Your task to perform on an android device: Open Reddit.com Image 0: 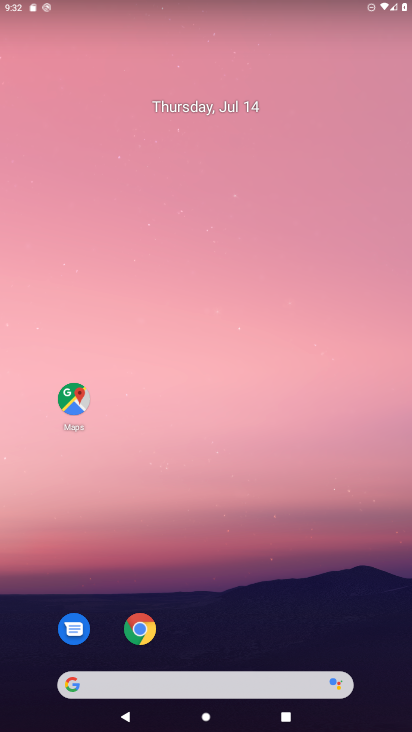
Step 0: drag from (239, 637) to (251, 31)
Your task to perform on an android device: Open Reddit.com Image 1: 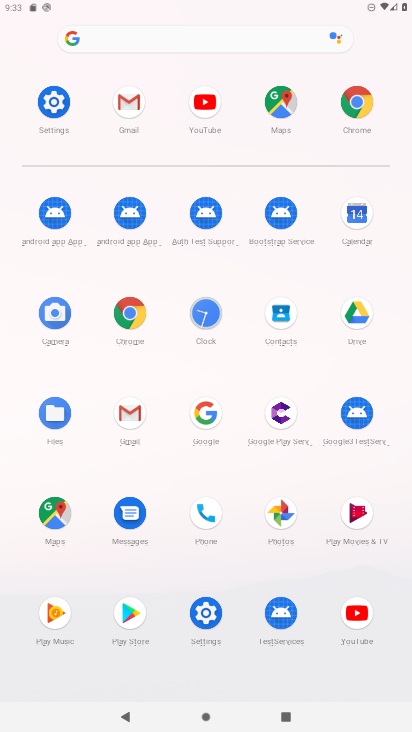
Step 1: click (123, 309)
Your task to perform on an android device: Open Reddit.com Image 2: 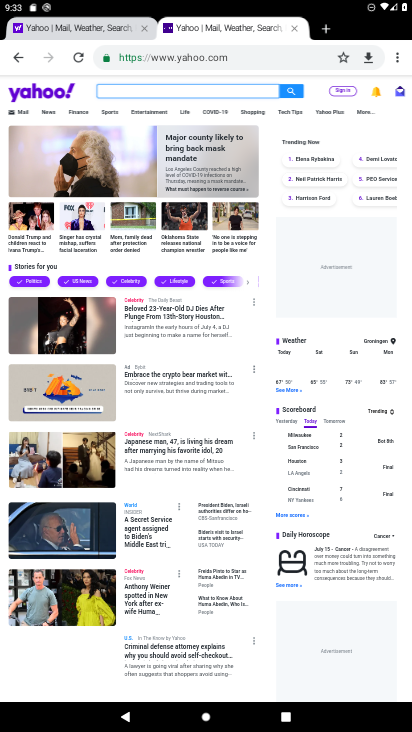
Step 2: click (159, 48)
Your task to perform on an android device: Open Reddit.com Image 3: 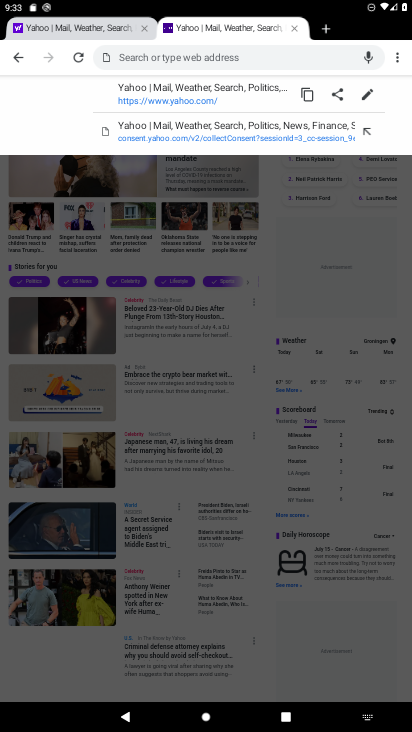
Step 3: type "Reddit.com"
Your task to perform on an android device: Open Reddit.com Image 4: 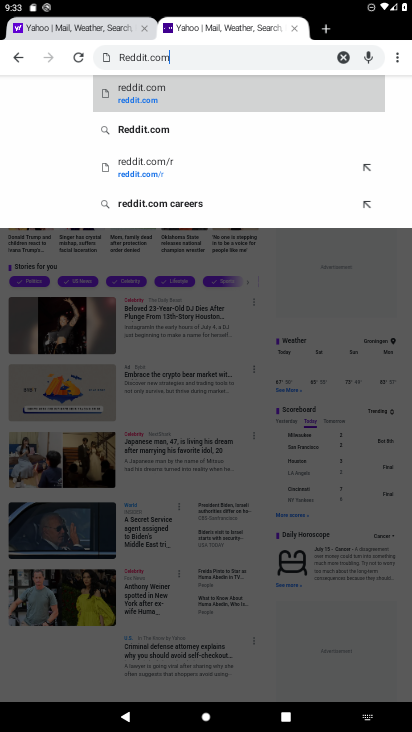
Step 4: click (145, 102)
Your task to perform on an android device: Open Reddit.com Image 5: 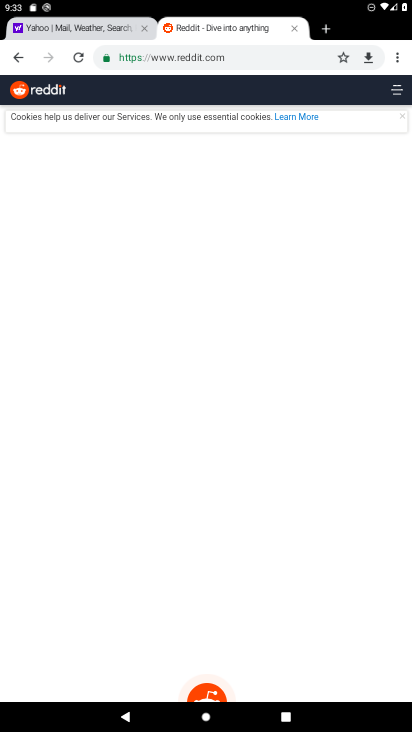
Step 5: task complete